Your task to perform on an android device: Open Chrome and go to settings Image 0: 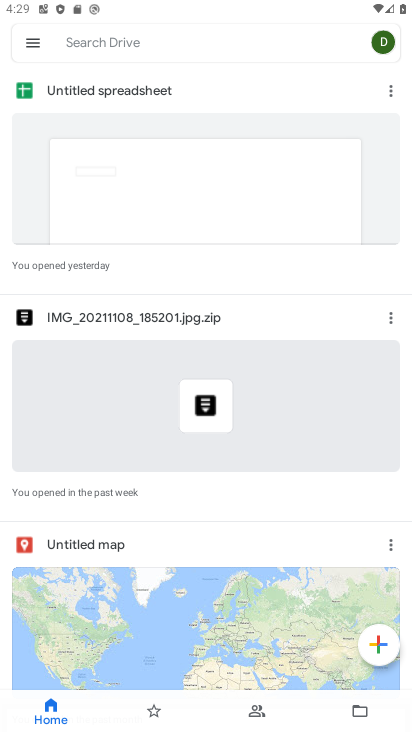
Step 0: press home button
Your task to perform on an android device: Open Chrome and go to settings Image 1: 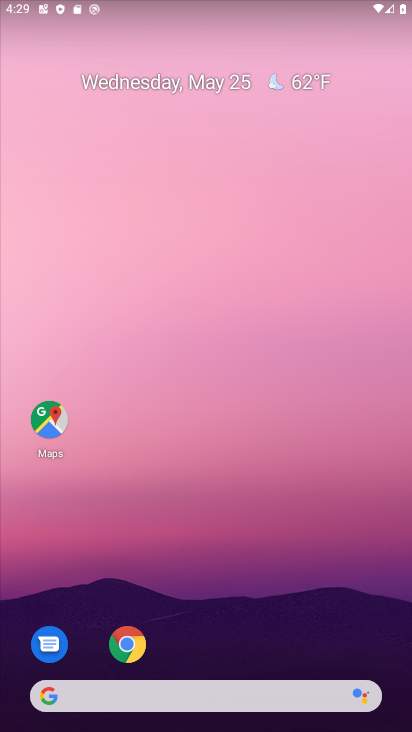
Step 1: drag from (204, 27) to (159, 227)
Your task to perform on an android device: Open Chrome and go to settings Image 2: 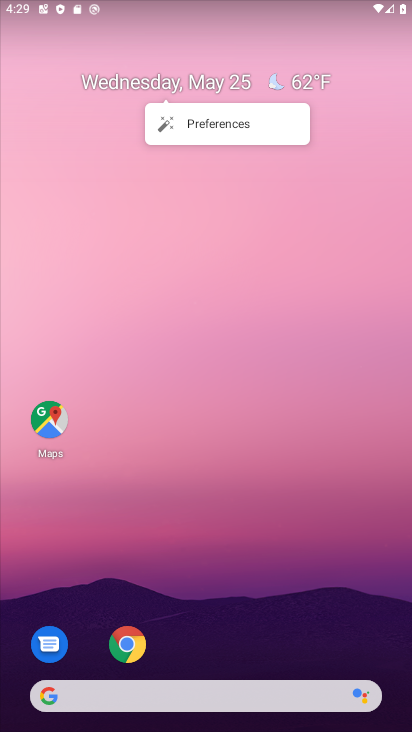
Step 2: click (236, 262)
Your task to perform on an android device: Open Chrome and go to settings Image 3: 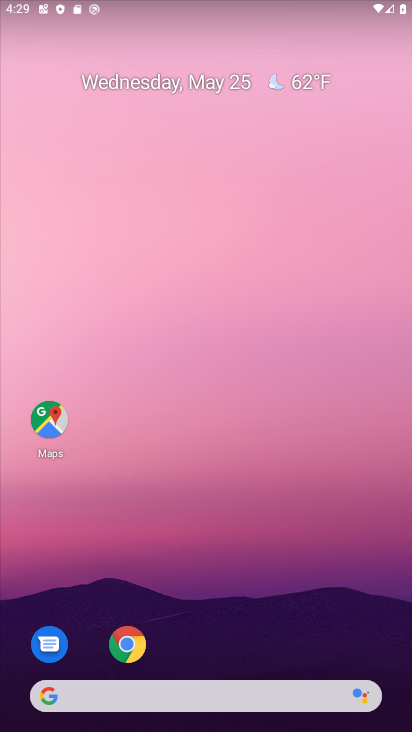
Step 3: click (129, 654)
Your task to perform on an android device: Open Chrome and go to settings Image 4: 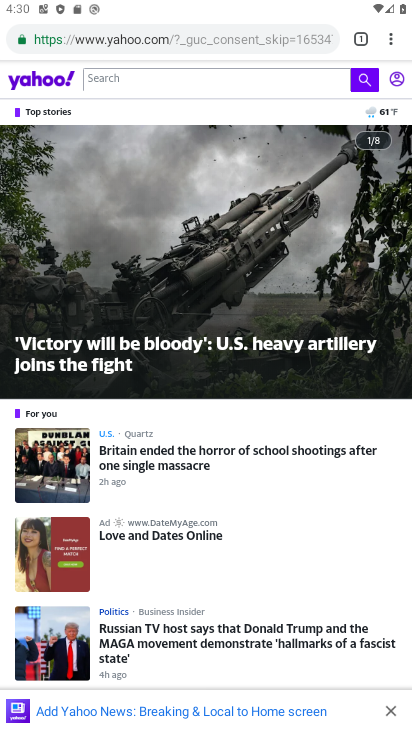
Step 4: click (387, 45)
Your task to perform on an android device: Open Chrome and go to settings Image 5: 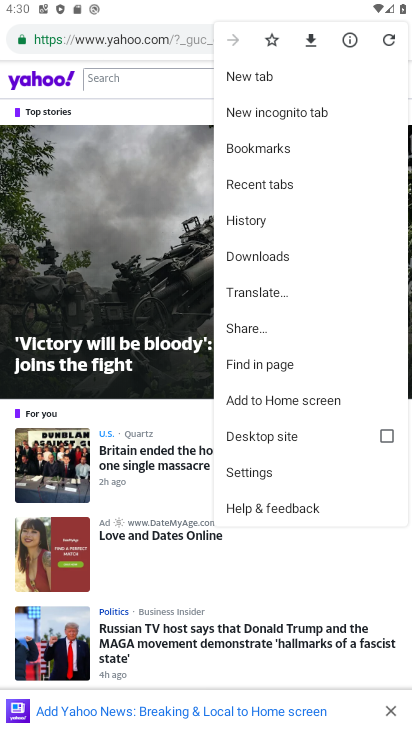
Step 5: click (263, 476)
Your task to perform on an android device: Open Chrome and go to settings Image 6: 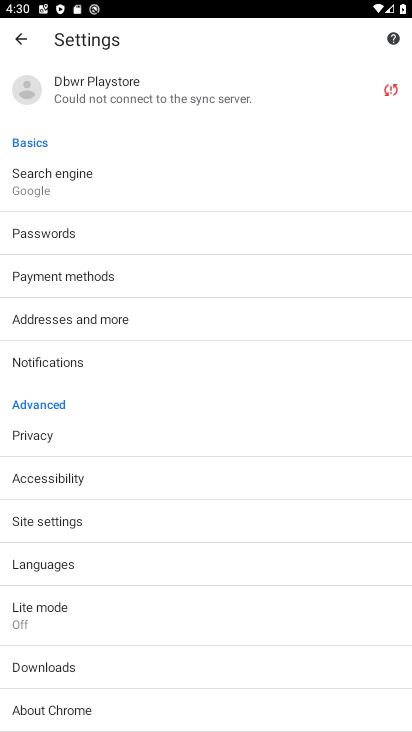
Step 6: task complete